Your task to perform on an android device: Open calendar and show me the third week of next month Image 0: 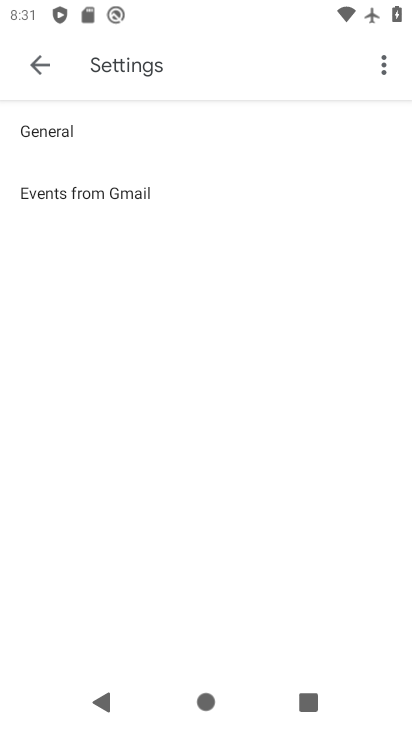
Step 0: press home button
Your task to perform on an android device: Open calendar and show me the third week of next month Image 1: 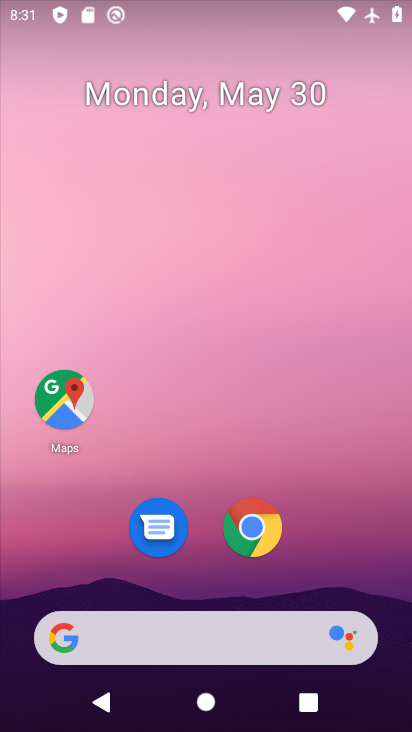
Step 1: drag from (327, 575) to (303, 0)
Your task to perform on an android device: Open calendar and show me the third week of next month Image 2: 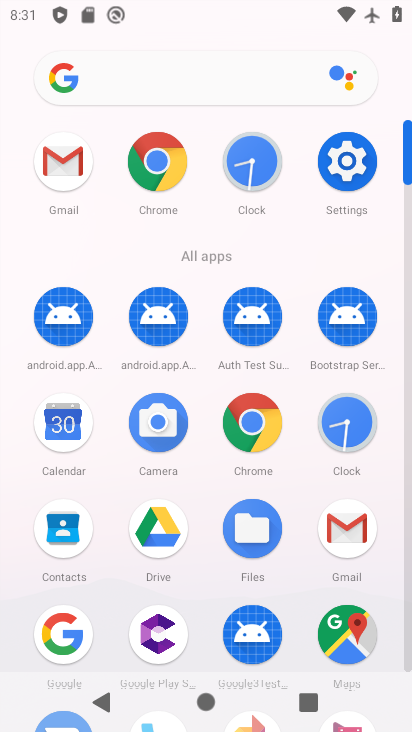
Step 2: click (66, 435)
Your task to perform on an android device: Open calendar and show me the third week of next month Image 3: 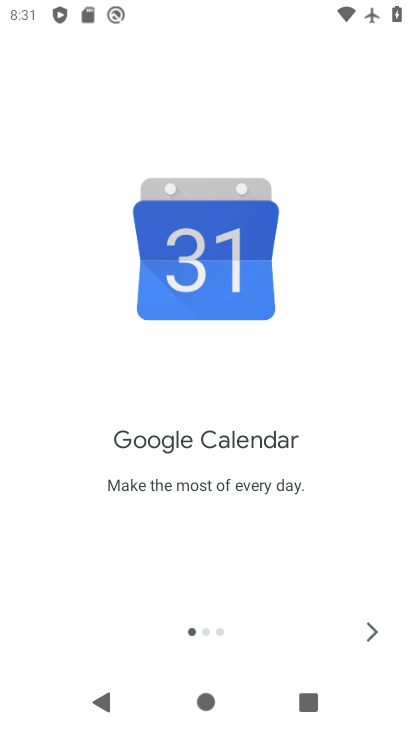
Step 3: click (380, 629)
Your task to perform on an android device: Open calendar and show me the third week of next month Image 4: 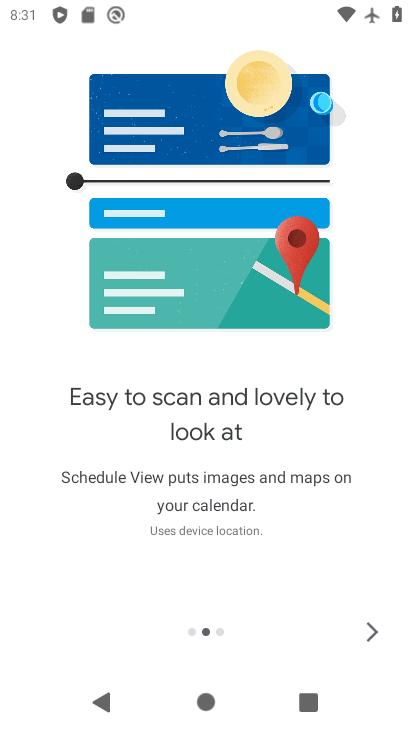
Step 4: click (378, 622)
Your task to perform on an android device: Open calendar and show me the third week of next month Image 5: 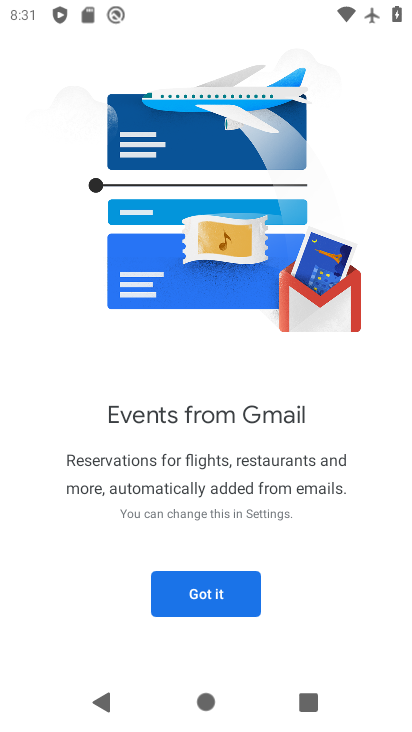
Step 5: click (227, 589)
Your task to perform on an android device: Open calendar and show me the third week of next month Image 6: 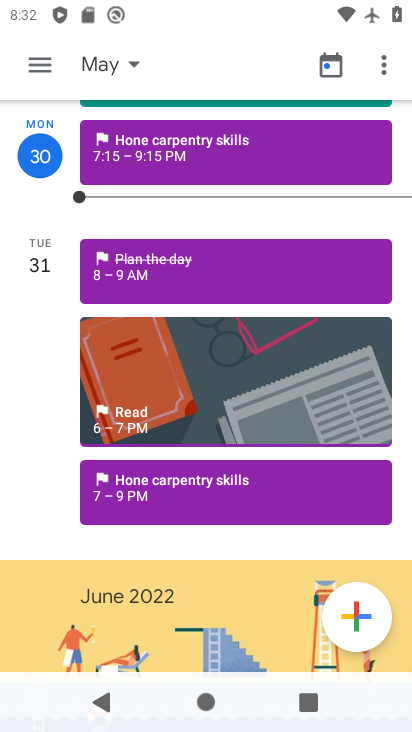
Step 6: click (104, 59)
Your task to perform on an android device: Open calendar and show me the third week of next month Image 7: 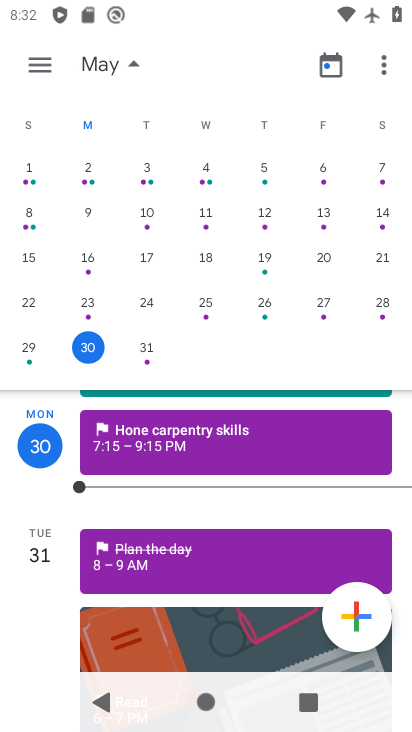
Step 7: drag from (396, 318) to (0, 289)
Your task to perform on an android device: Open calendar and show me the third week of next month Image 8: 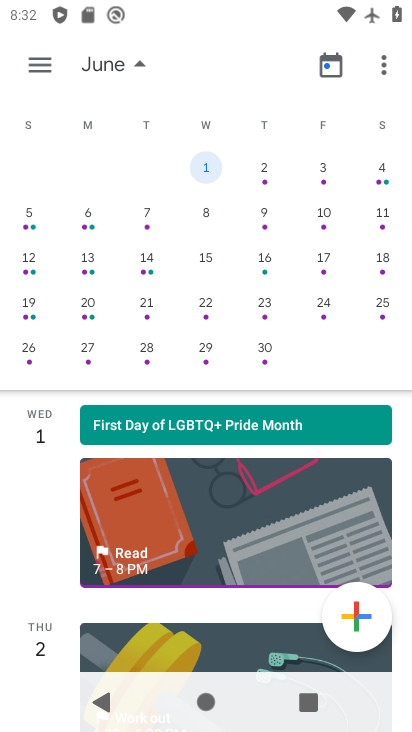
Step 8: click (35, 259)
Your task to perform on an android device: Open calendar and show me the third week of next month Image 9: 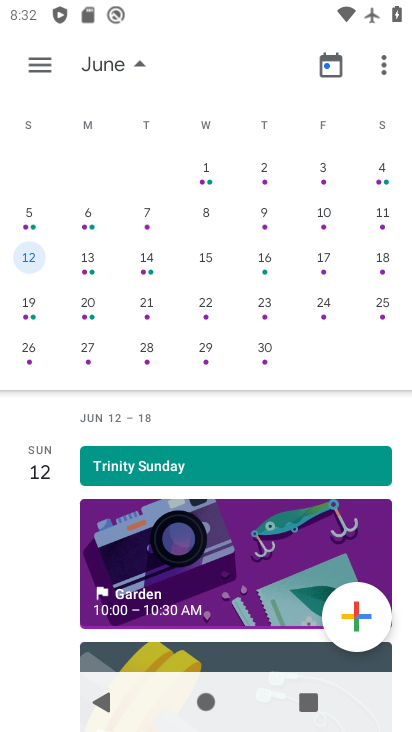
Step 9: task complete